Your task to perform on an android device: Show me popular games on the Play Store Image 0: 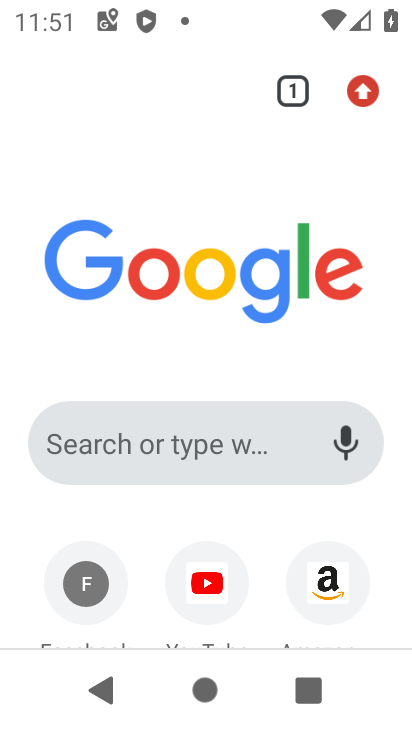
Step 0: press home button
Your task to perform on an android device: Show me popular games on the Play Store Image 1: 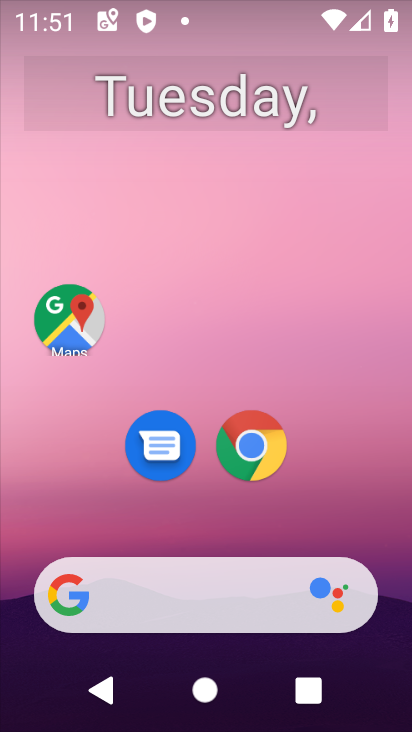
Step 1: drag from (259, 532) to (321, 49)
Your task to perform on an android device: Show me popular games on the Play Store Image 2: 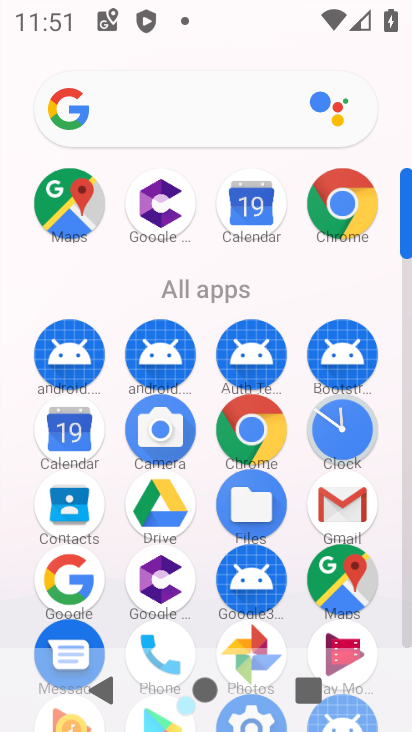
Step 2: drag from (284, 529) to (310, 313)
Your task to perform on an android device: Show me popular games on the Play Store Image 3: 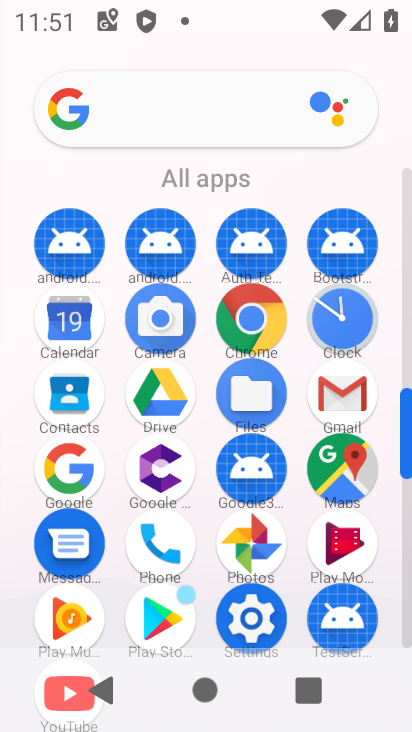
Step 3: click (160, 637)
Your task to perform on an android device: Show me popular games on the Play Store Image 4: 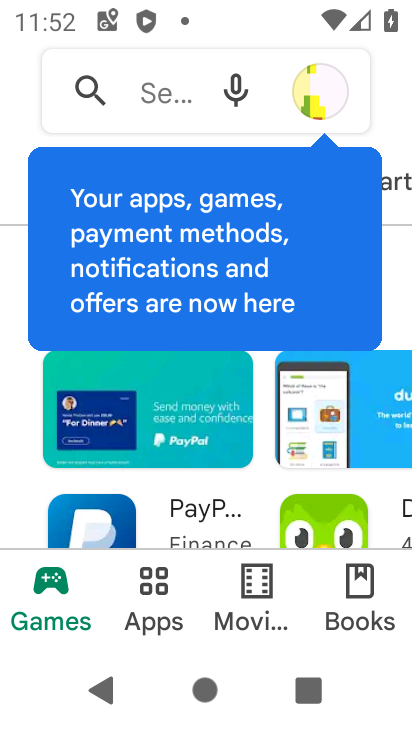
Step 4: click (316, 112)
Your task to perform on an android device: Show me popular games on the Play Store Image 5: 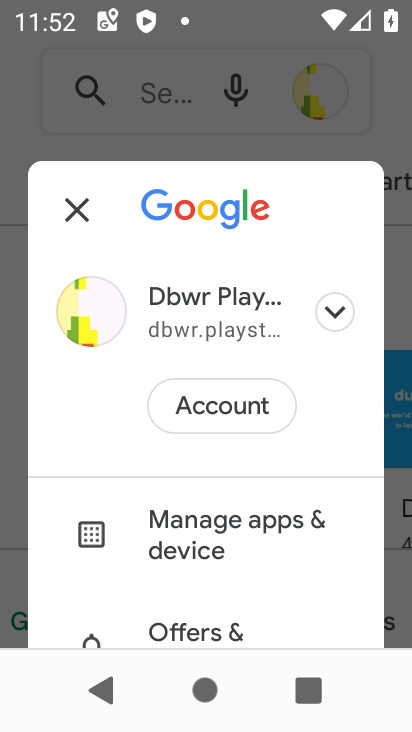
Step 5: click (80, 209)
Your task to perform on an android device: Show me popular games on the Play Store Image 6: 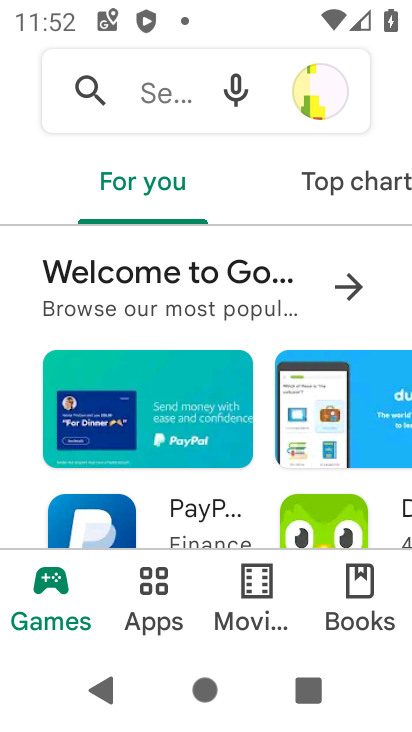
Step 6: task complete